Your task to perform on an android device: Open battery settings Image 0: 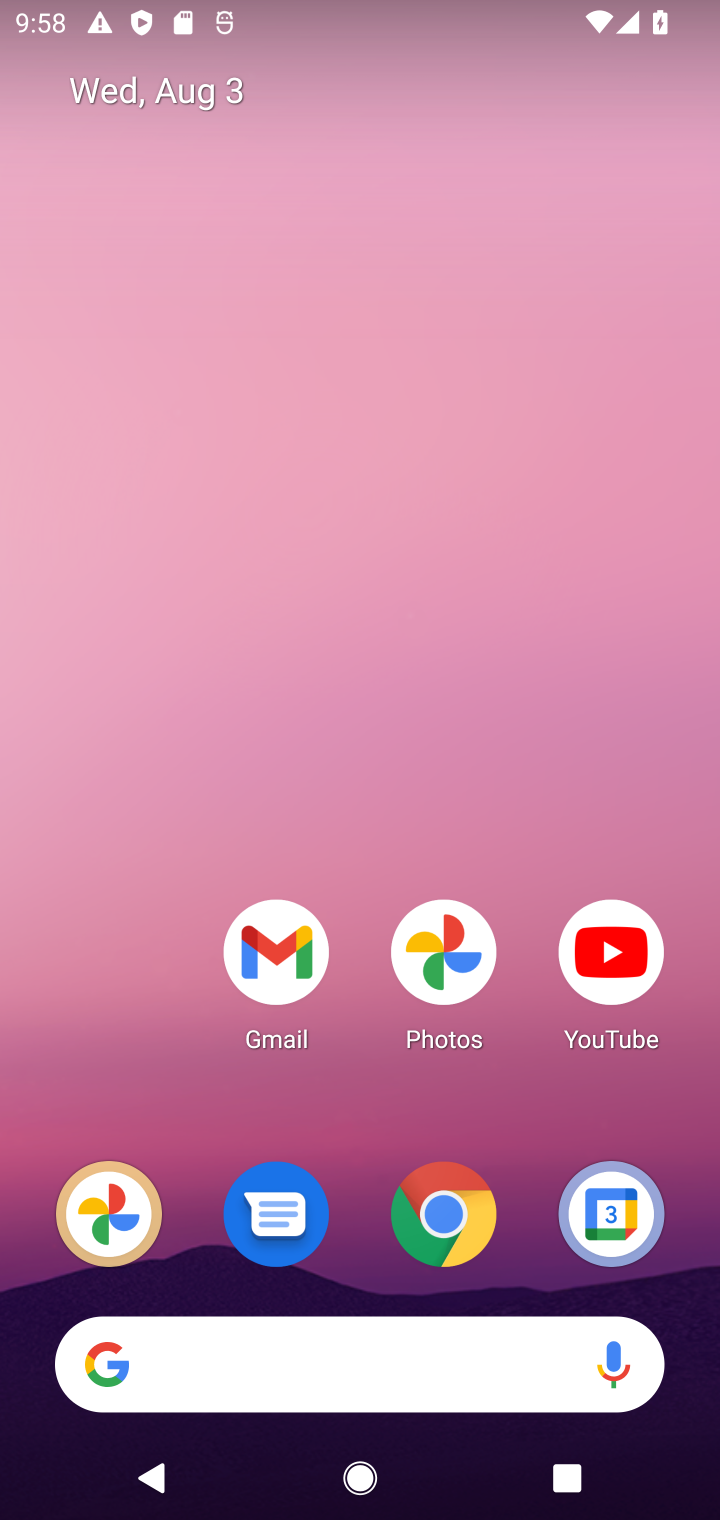
Step 0: press home button
Your task to perform on an android device: Open battery settings Image 1: 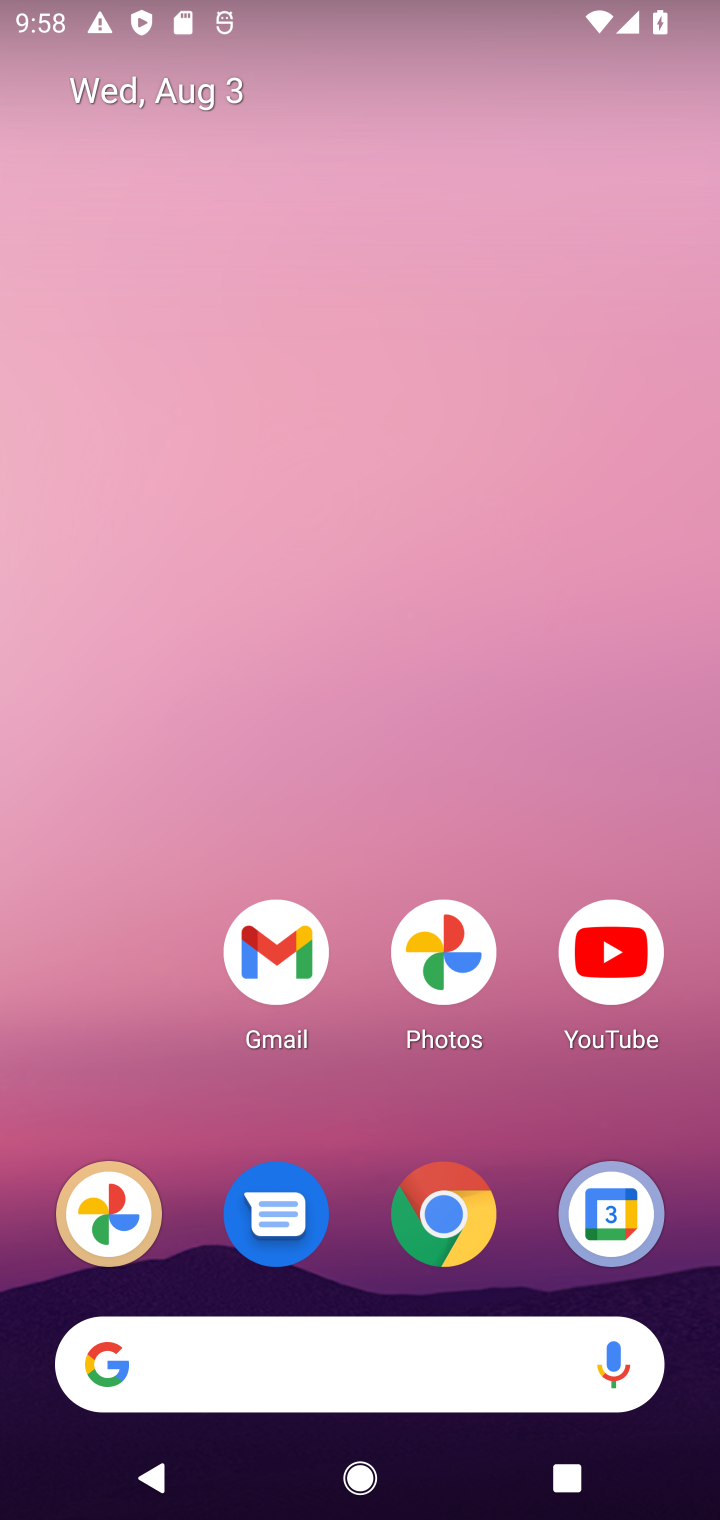
Step 1: drag from (472, 1289) to (683, 227)
Your task to perform on an android device: Open battery settings Image 2: 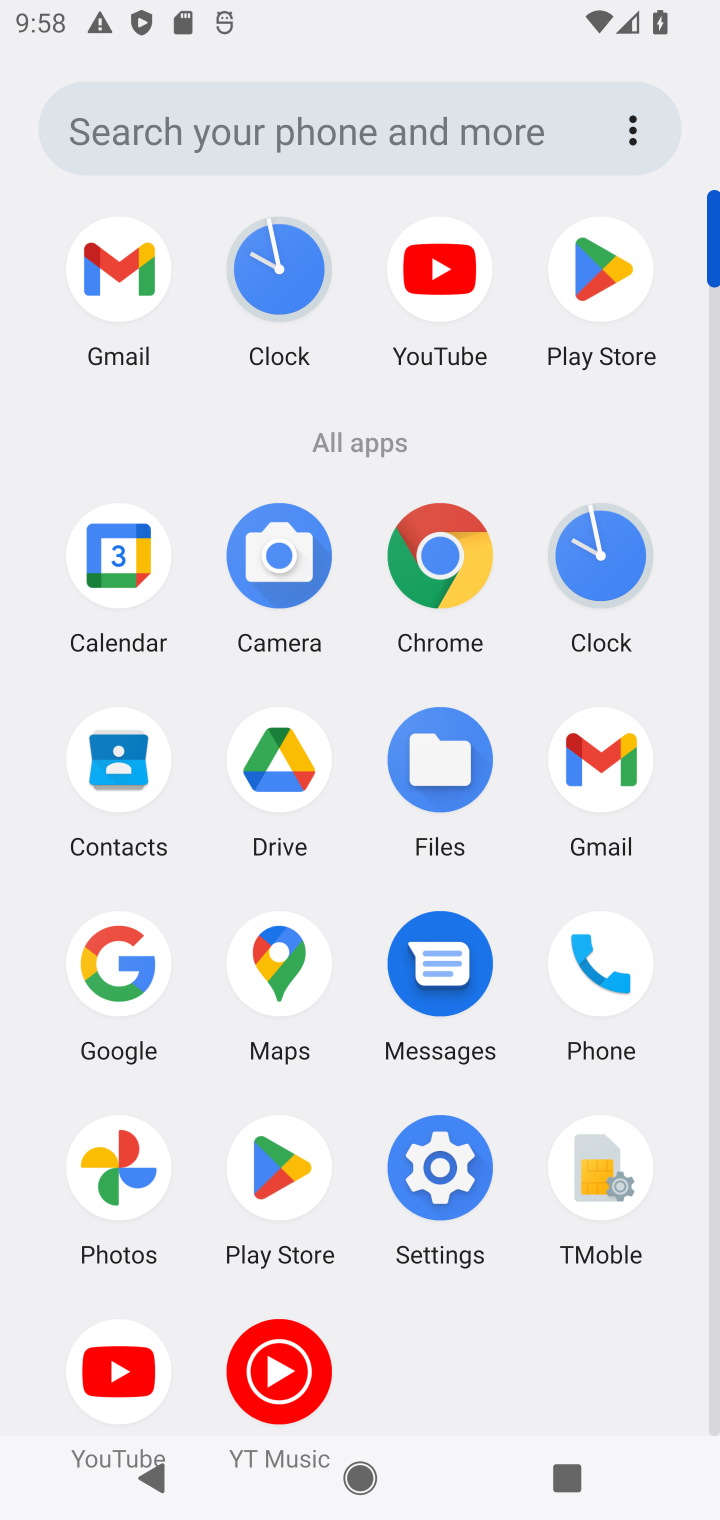
Step 2: click (469, 1181)
Your task to perform on an android device: Open battery settings Image 3: 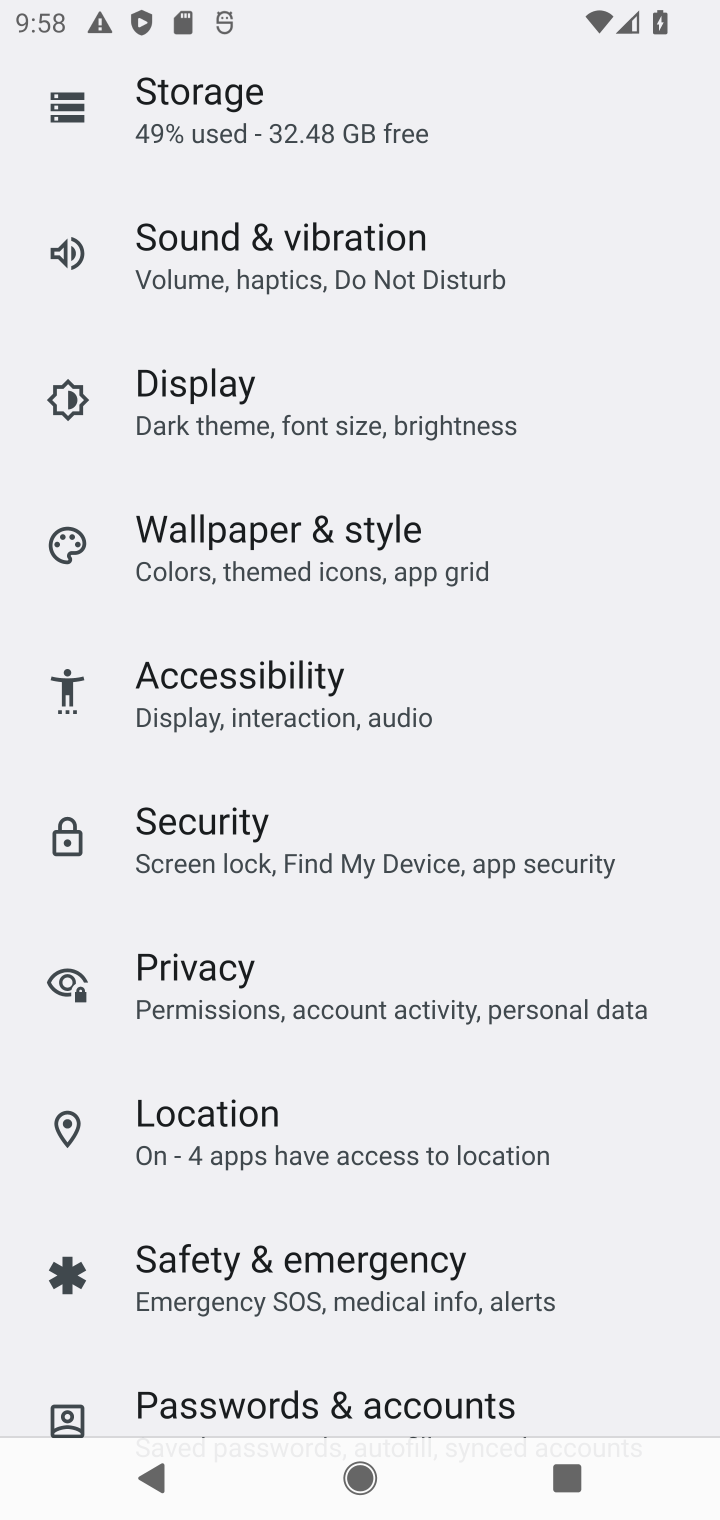
Step 3: drag from (166, 372) to (345, 1359)
Your task to perform on an android device: Open battery settings Image 4: 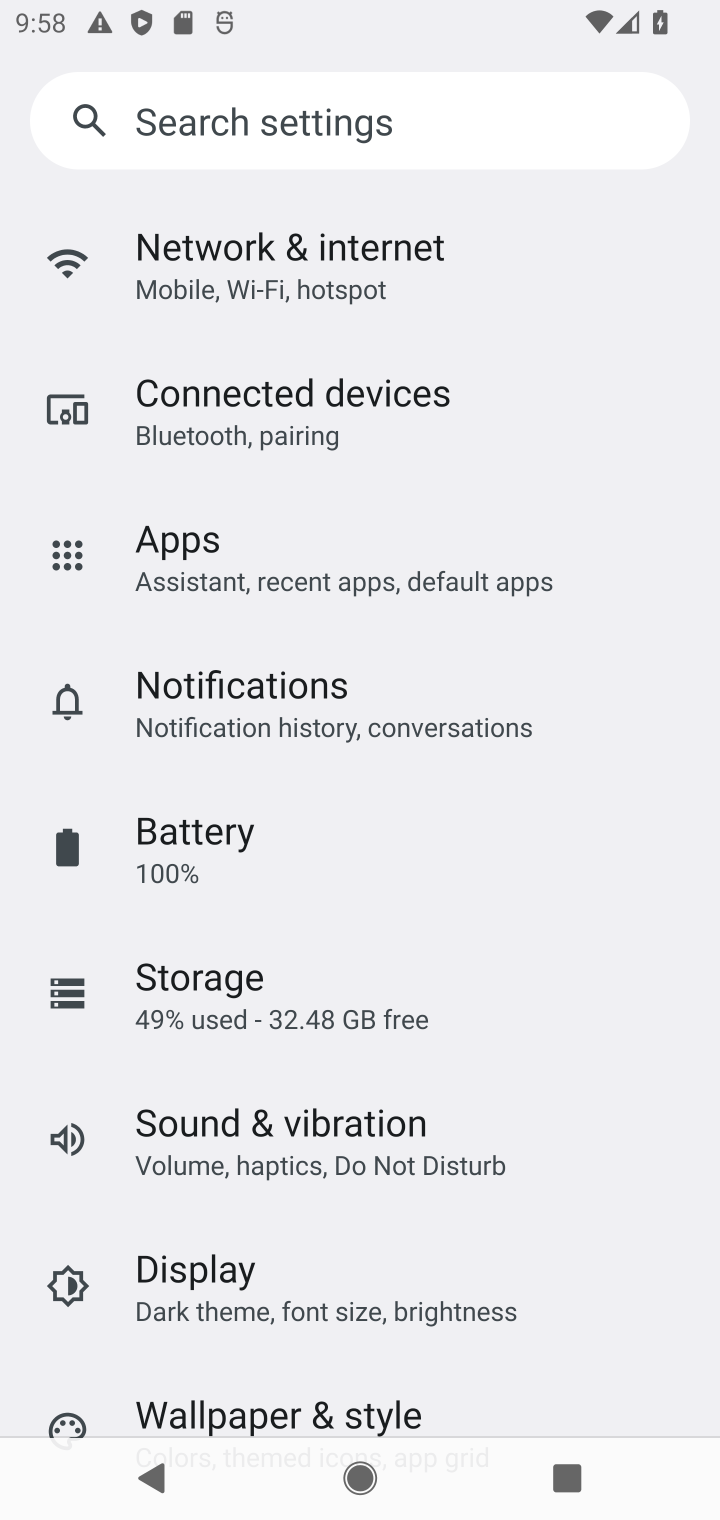
Step 4: click (205, 844)
Your task to perform on an android device: Open battery settings Image 5: 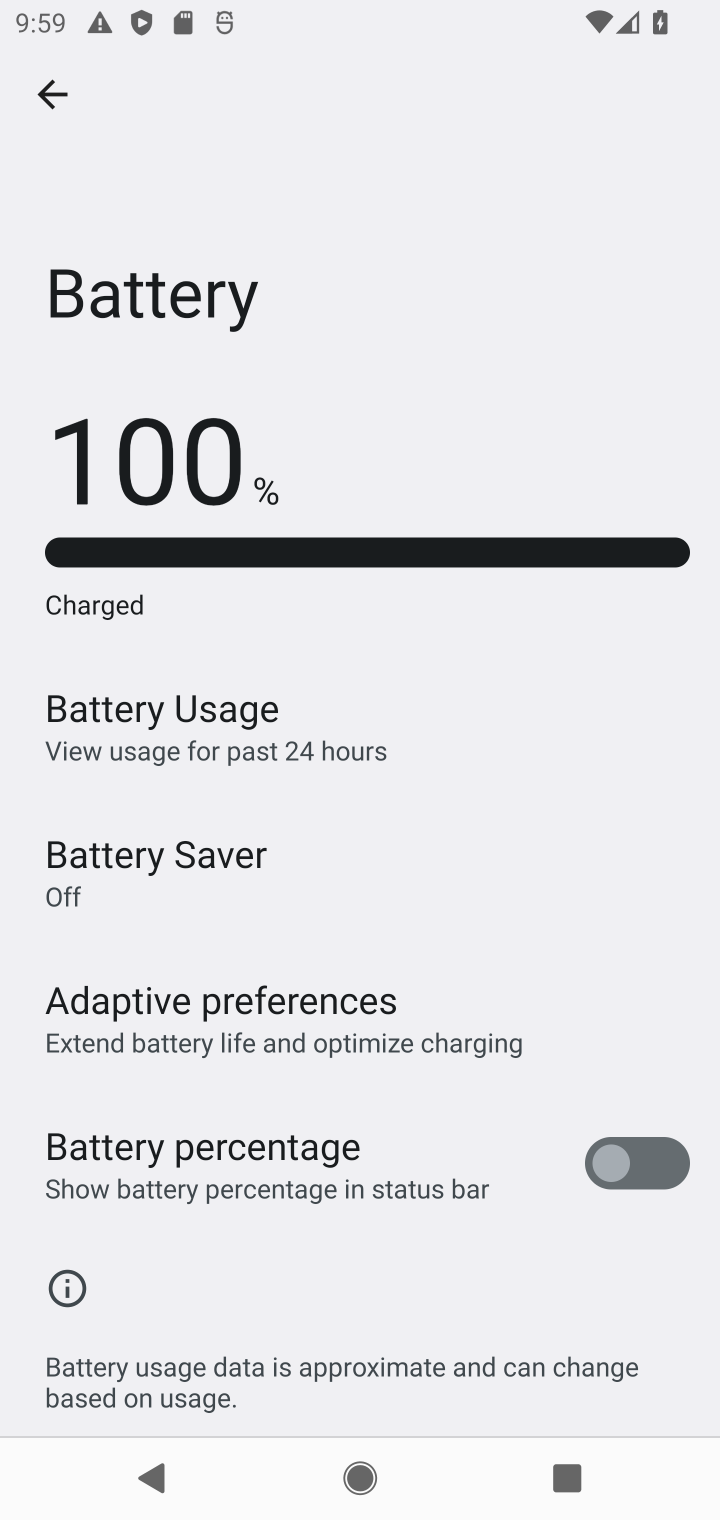
Step 5: click (443, 1018)
Your task to perform on an android device: Open battery settings Image 6: 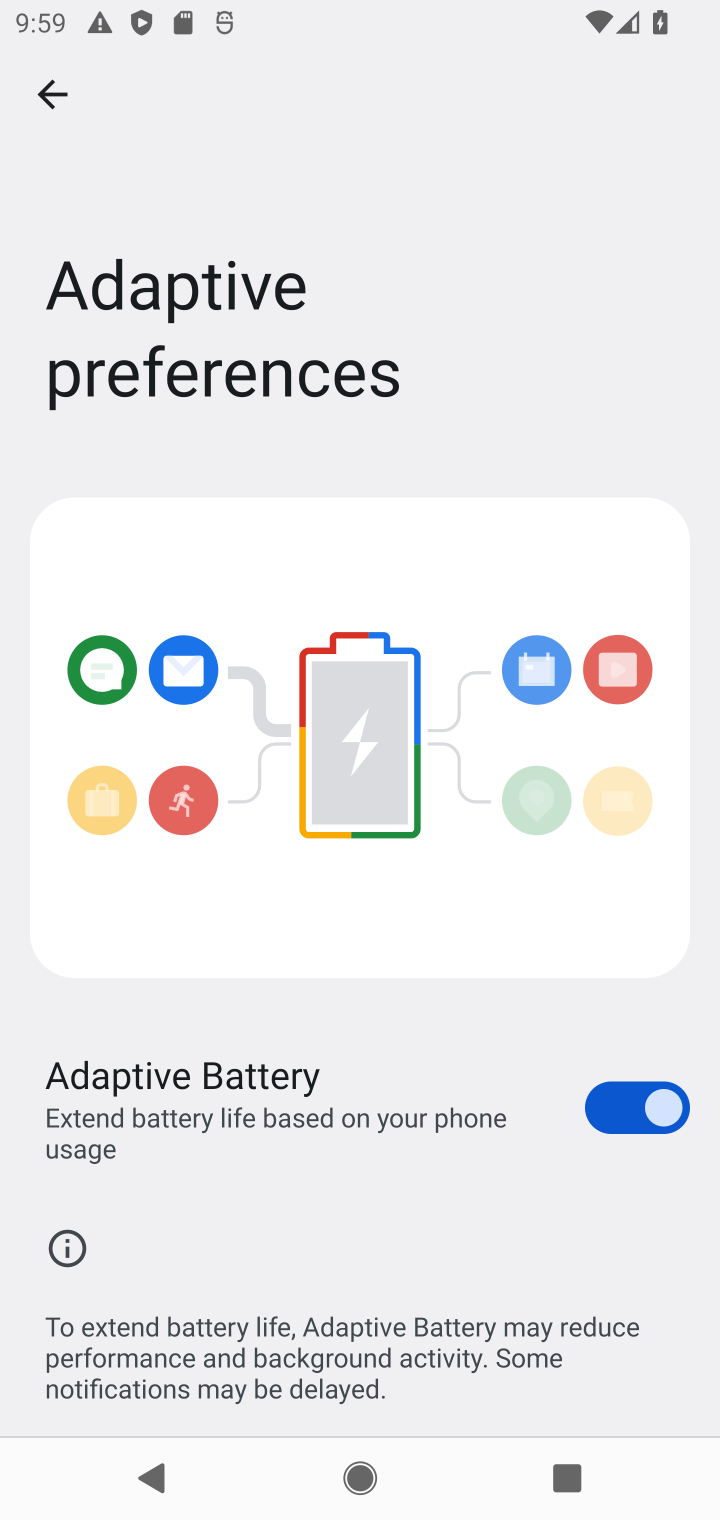
Step 6: click (32, 111)
Your task to perform on an android device: Open battery settings Image 7: 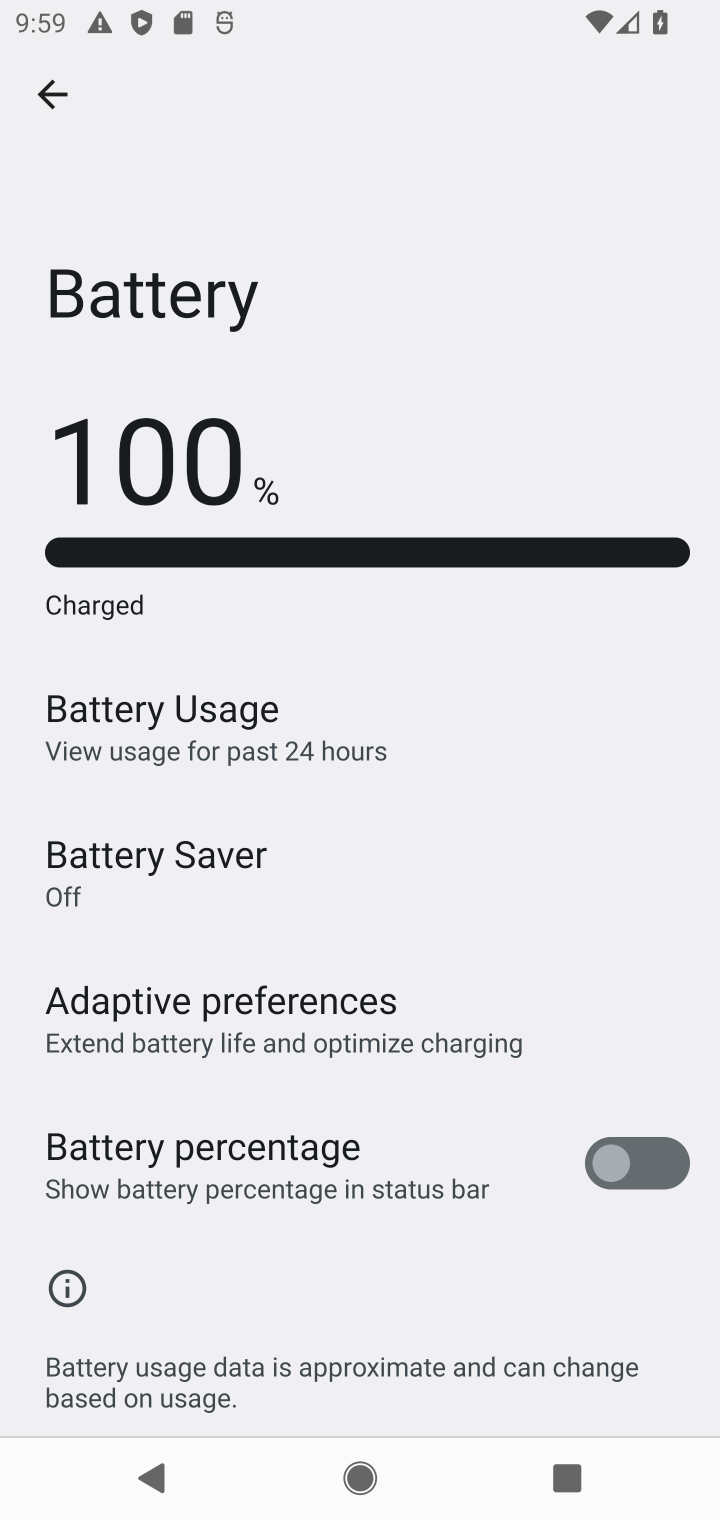
Step 7: click (49, 90)
Your task to perform on an android device: Open battery settings Image 8: 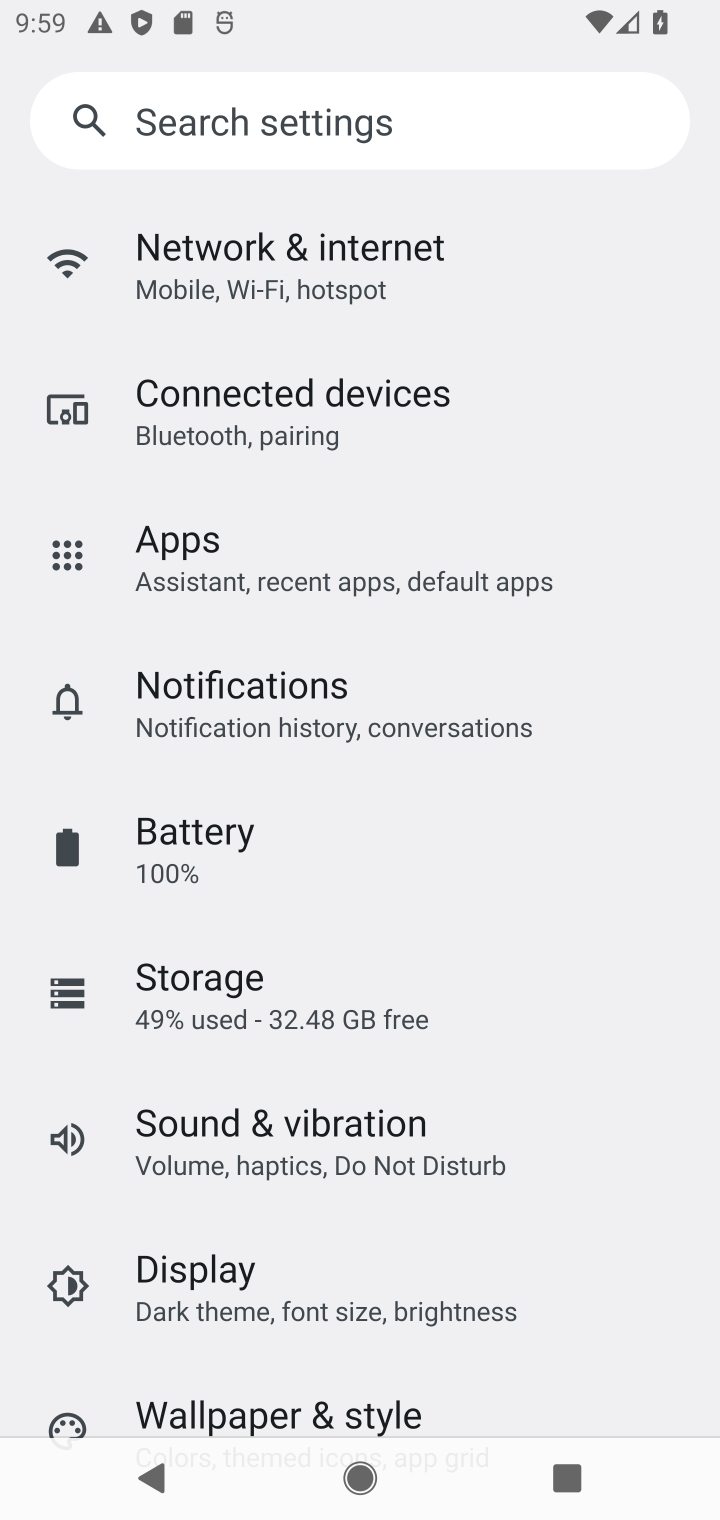
Step 8: click (335, 822)
Your task to perform on an android device: Open battery settings Image 9: 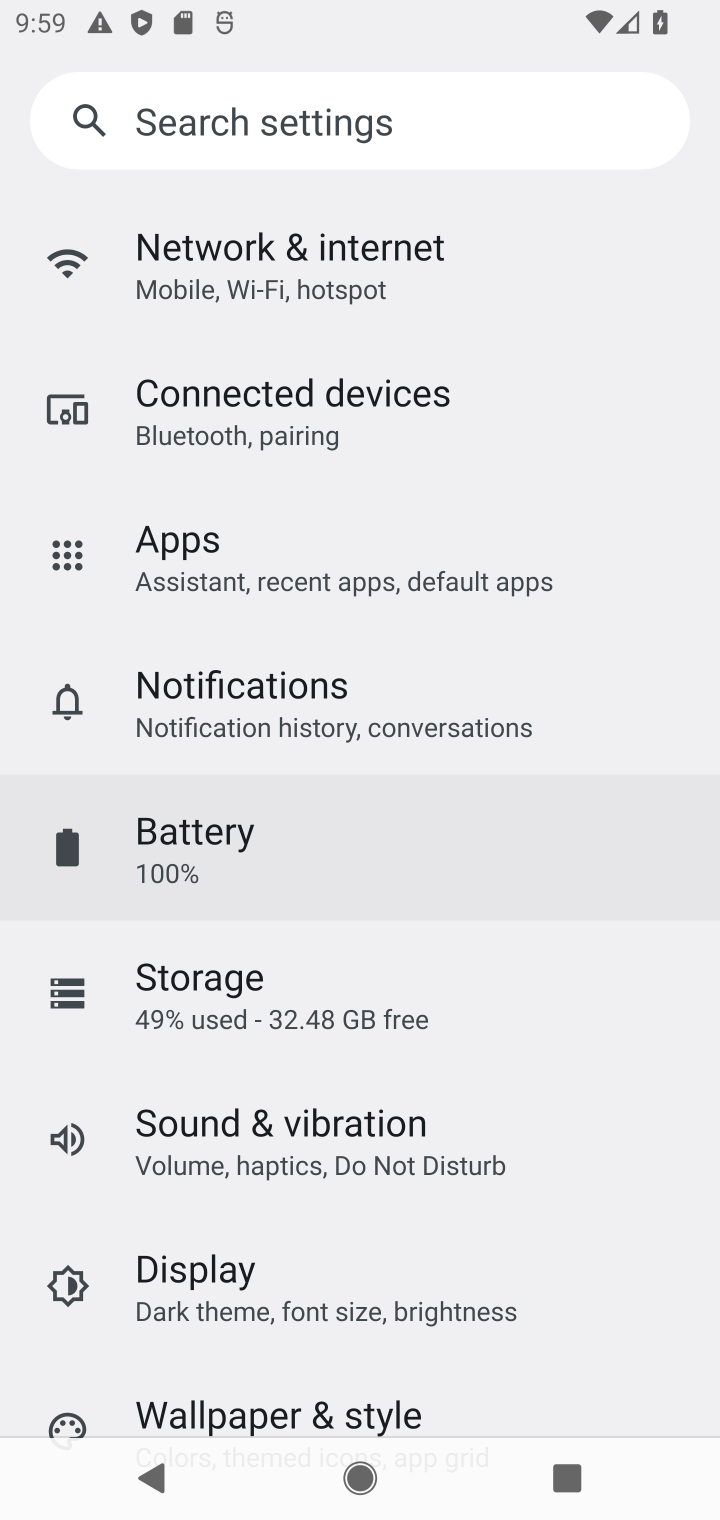
Step 9: task complete